Your task to perform on an android device: What time is it in San Francisco? Image 0: 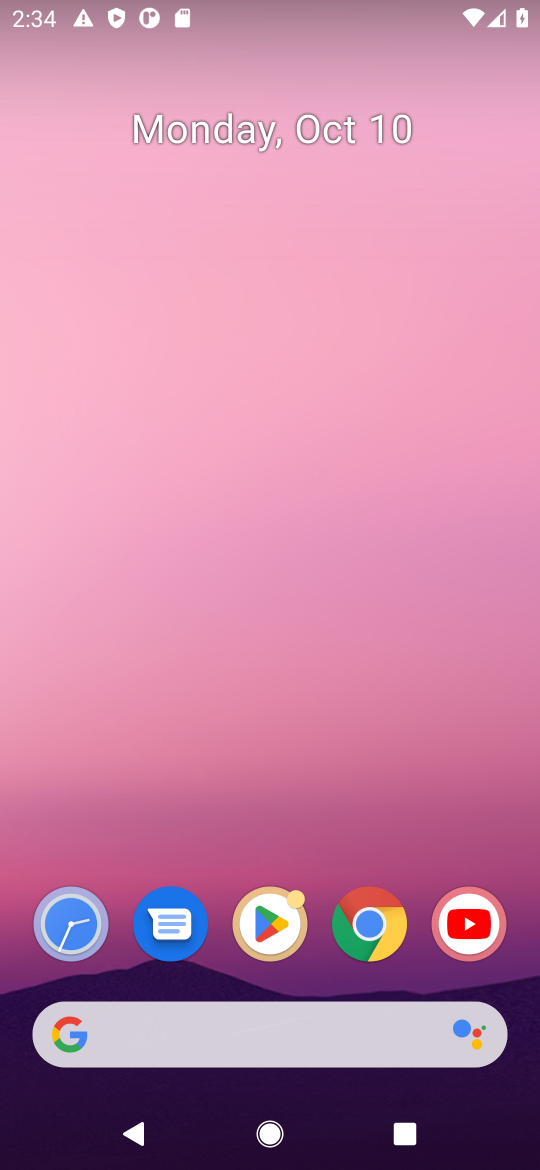
Step 0: click (364, 944)
Your task to perform on an android device: What time is it in San Francisco? Image 1: 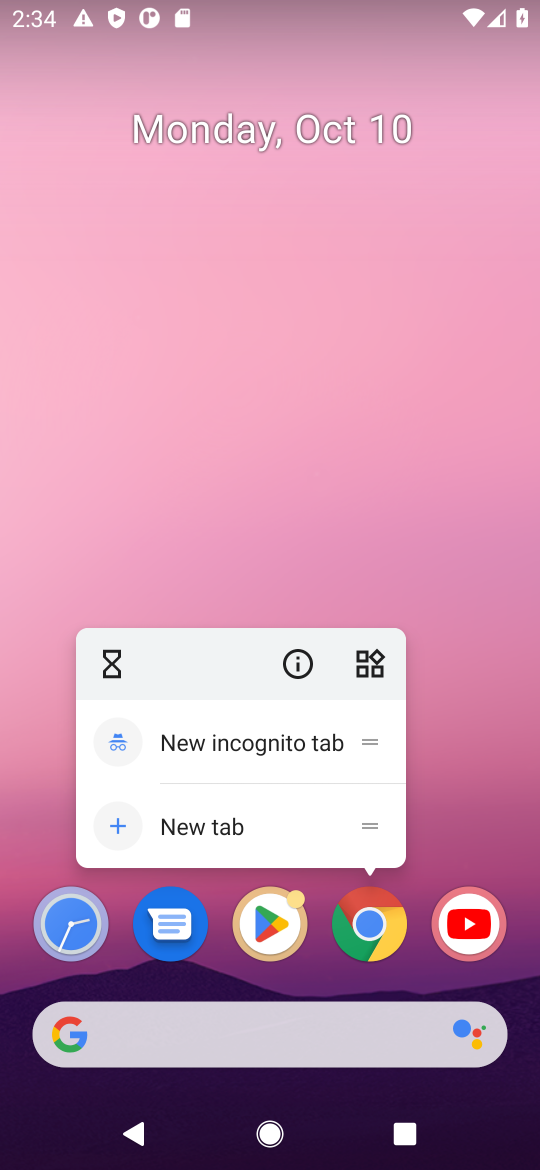
Step 1: click (362, 942)
Your task to perform on an android device: What time is it in San Francisco? Image 2: 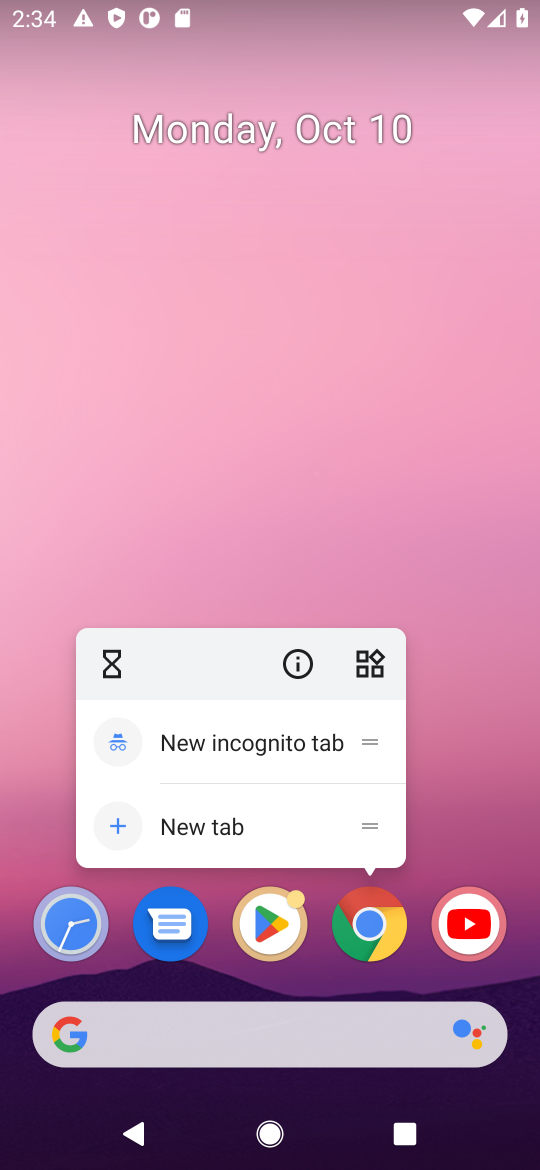
Step 2: click (374, 933)
Your task to perform on an android device: What time is it in San Francisco? Image 3: 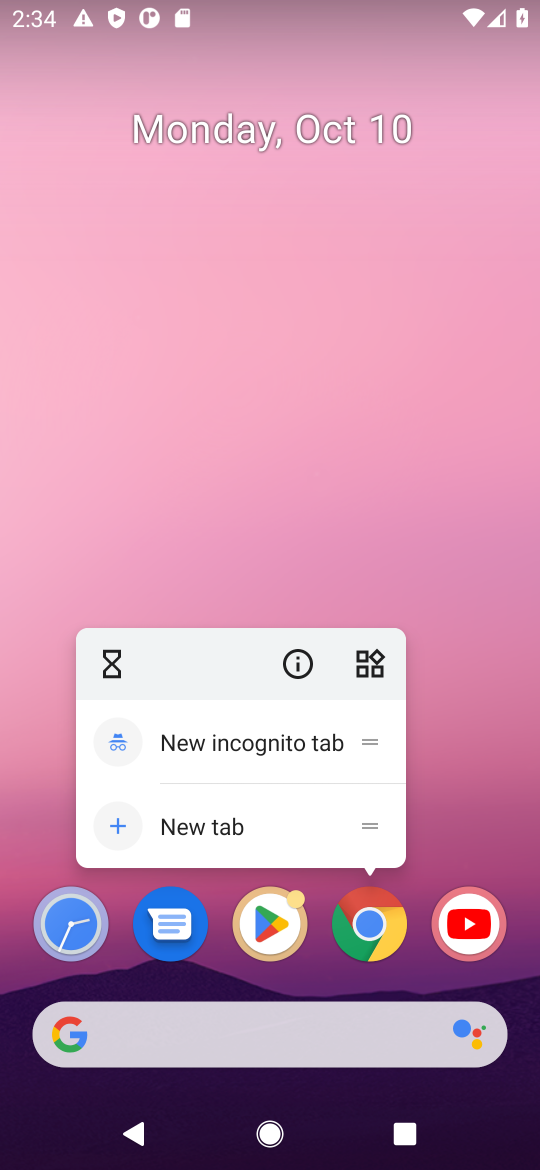
Step 3: click (381, 938)
Your task to perform on an android device: What time is it in San Francisco? Image 4: 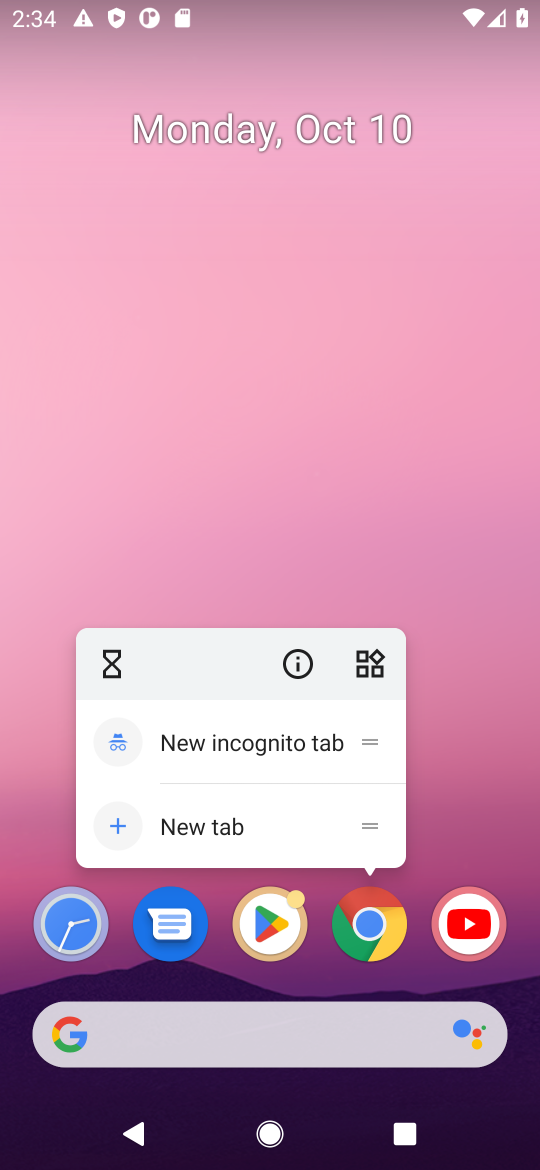
Step 4: click (372, 952)
Your task to perform on an android device: What time is it in San Francisco? Image 5: 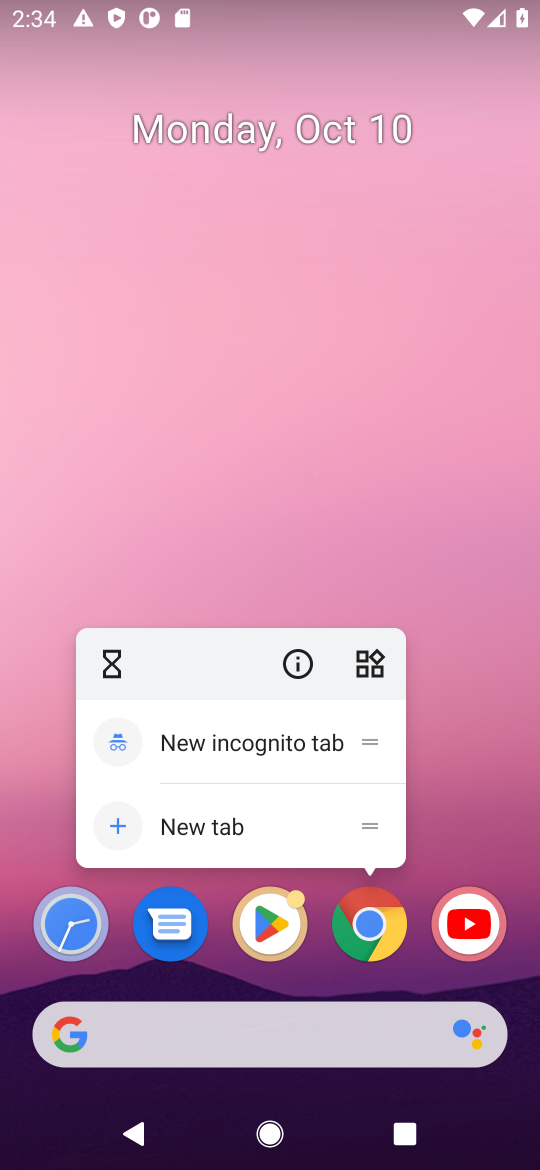
Step 5: drag from (358, 1003) to (401, 249)
Your task to perform on an android device: What time is it in San Francisco? Image 6: 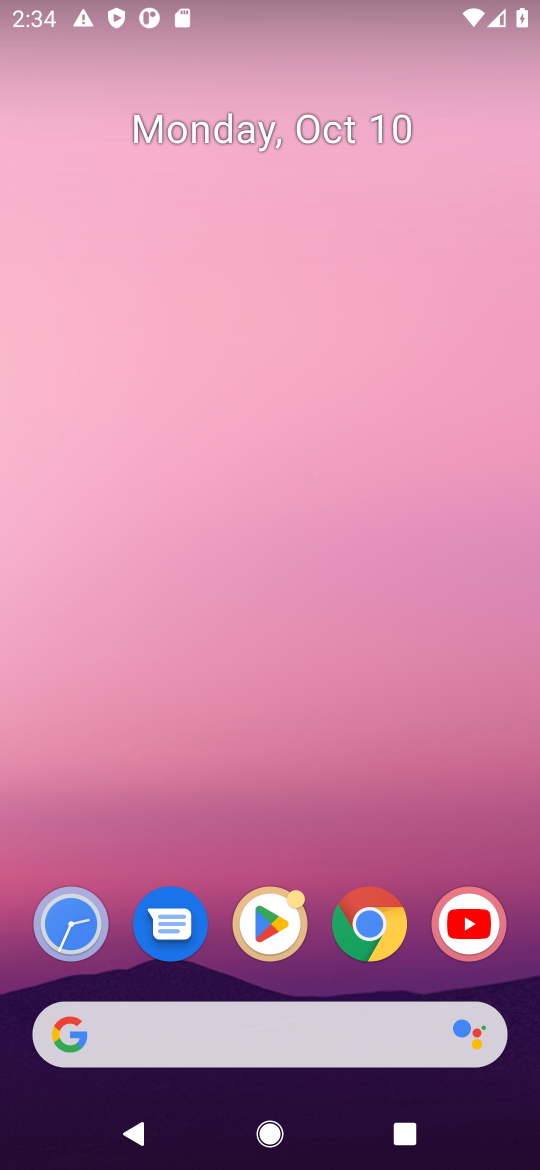
Step 6: click (386, 918)
Your task to perform on an android device: What time is it in San Francisco? Image 7: 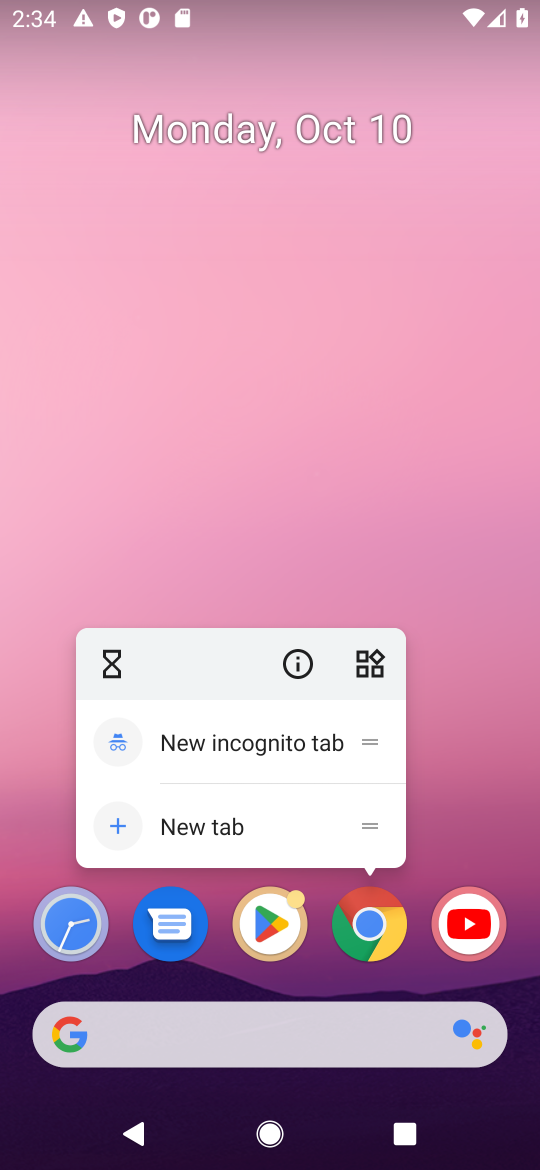
Step 7: click (264, 842)
Your task to perform on an android device: What time is it in San Francisco? Image 8: 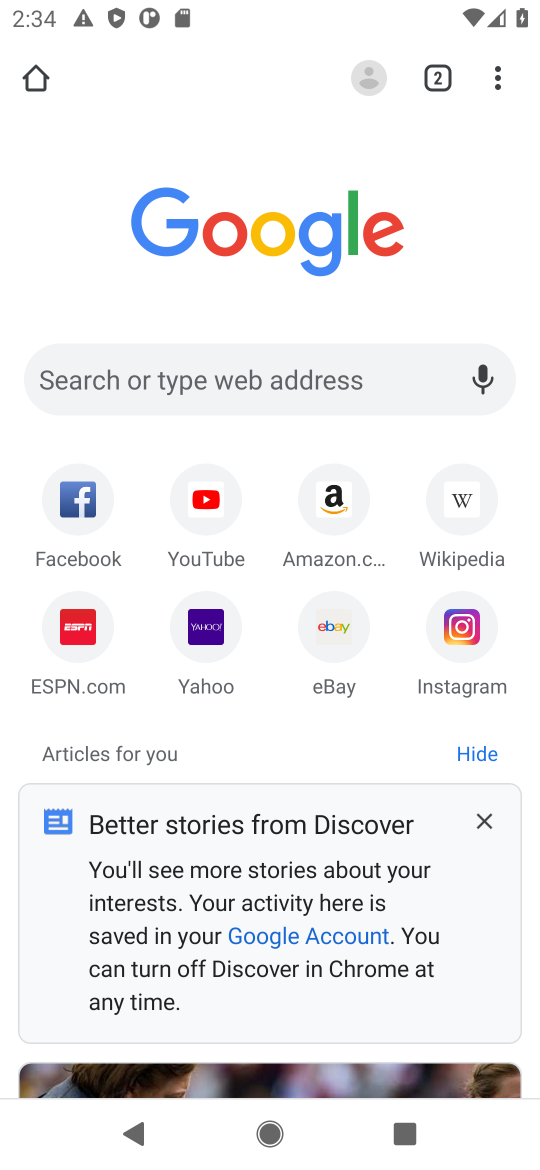
Step 8: click (248, 392)
Your task to perform on an android device: What time is it in San Francisco? Image 9: 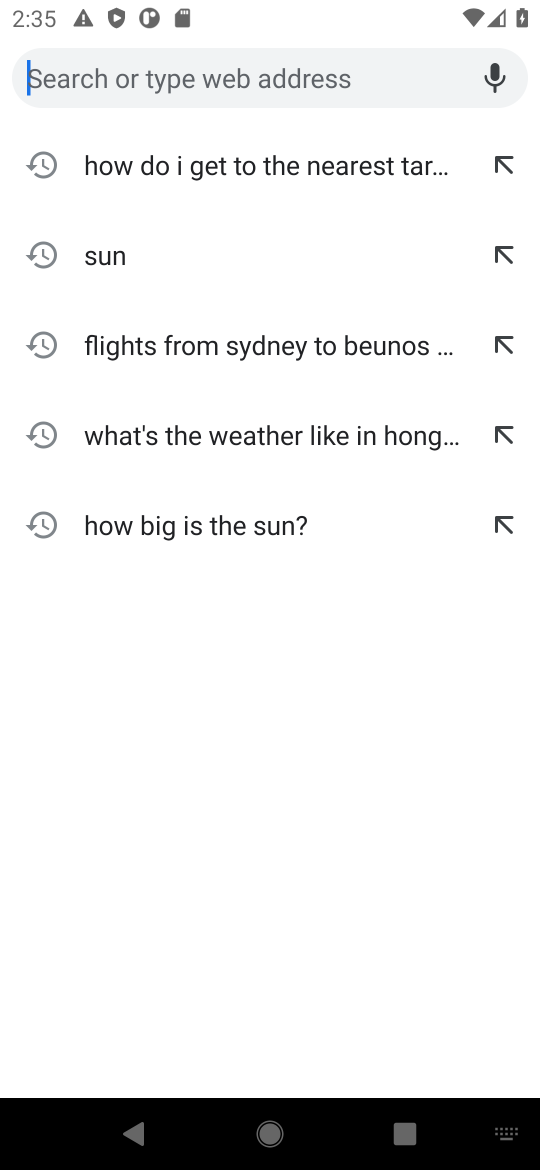
Step 9: type "time in San Francisco"
Your task to perform on an android device: What time is it in San Francisco? Image 10: 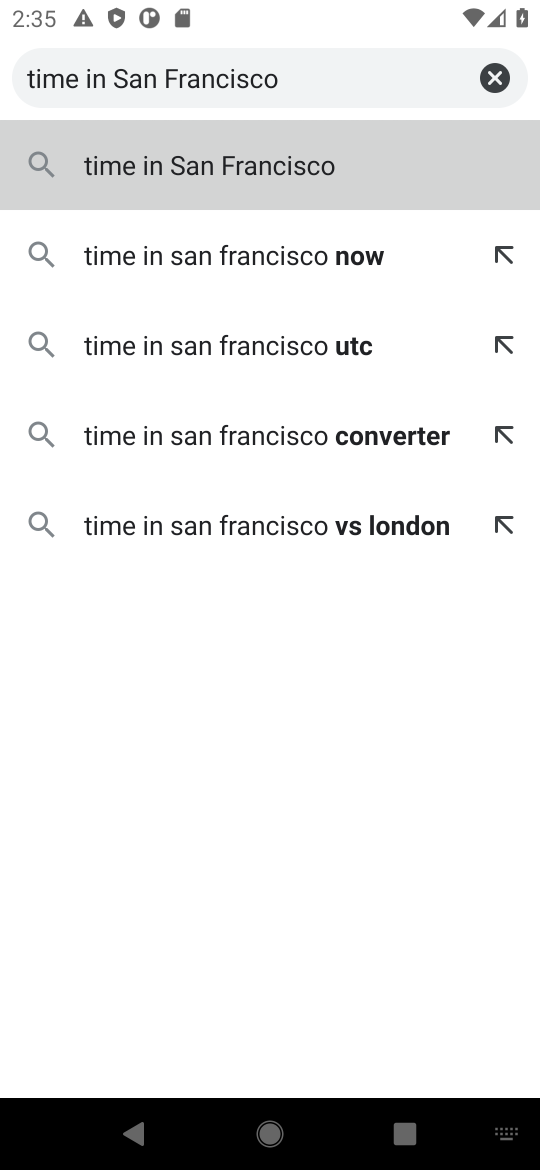
Step 10: type ""
Your task to perform on an android device: What time is it in San Francisco? Image 11: 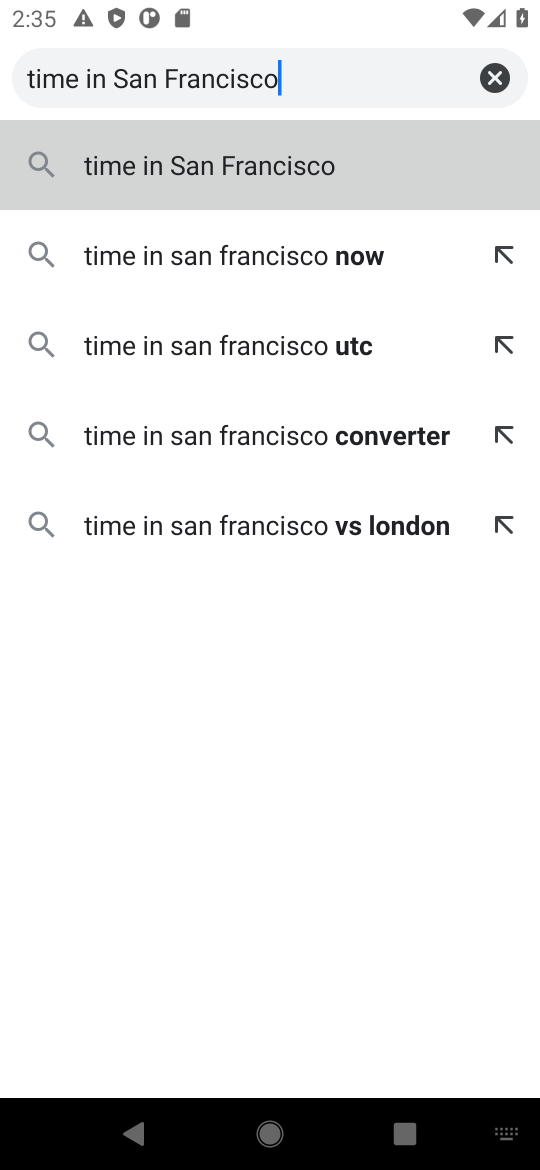
Step 11: press enter
Your task to perform on an android device: What time is it in San Francisco? Image 12: 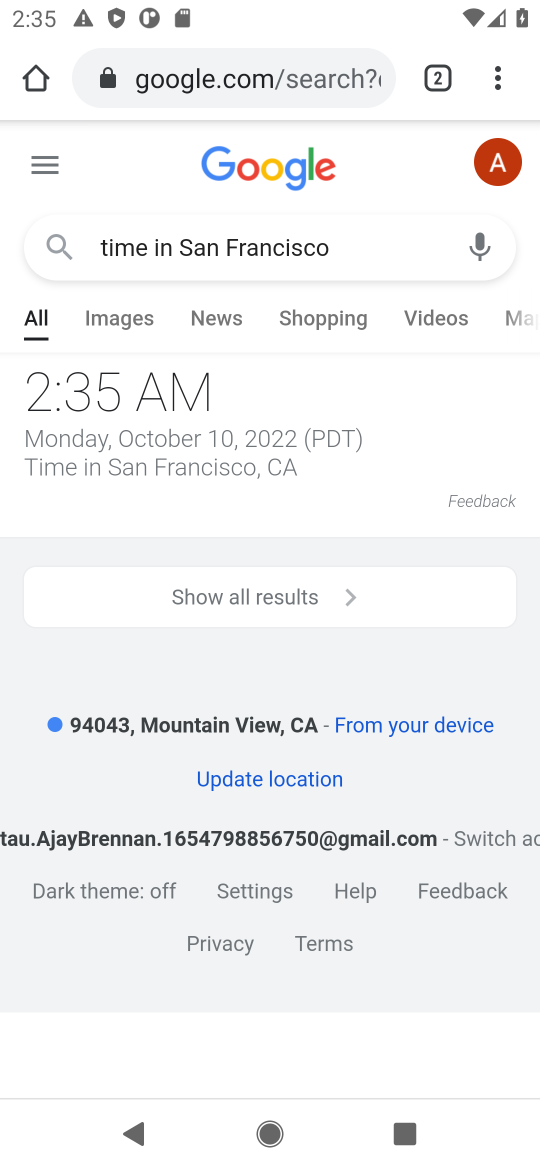
Step 12: task complete